Your task to perform on an android device: Open Amazon Image 0: 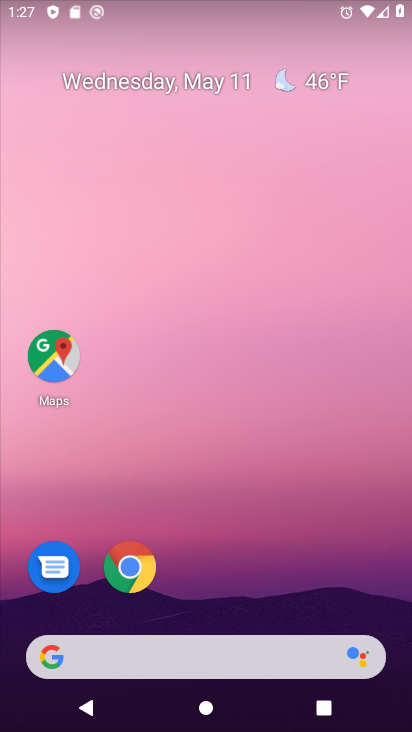
Step 0: click (136, 583)
Your task to perform on an android device: Open Amazon Image 1: 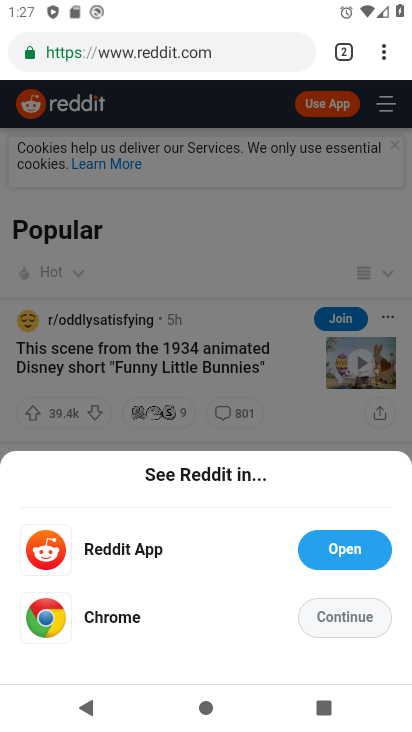
Step 1: click (347, 41)
Your task to perform on an android device: Open Amazon Image 2: 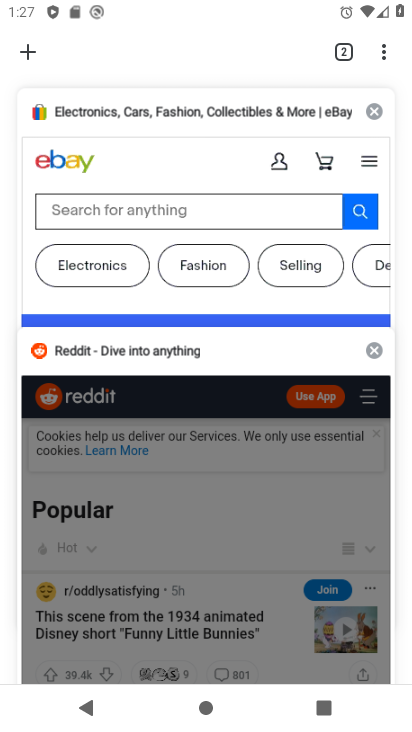
Step 2: click (25, 45)
Your task to perform on an android device: Open Amazon Image 3: 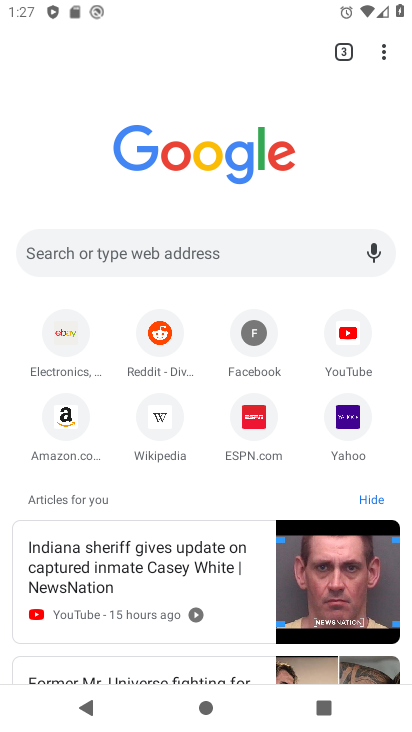
Step 3: click (67, 416)
Your task to perform on an android device: Open Amazon Image 4: 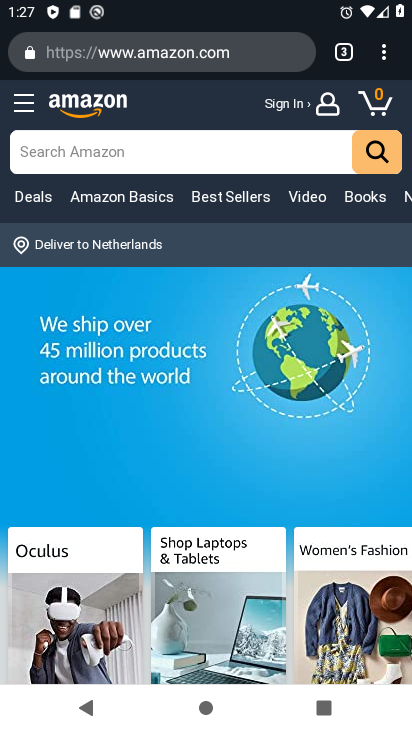
Step 4: task complete